Your task to perform on an android device: Go to settings Image 0: 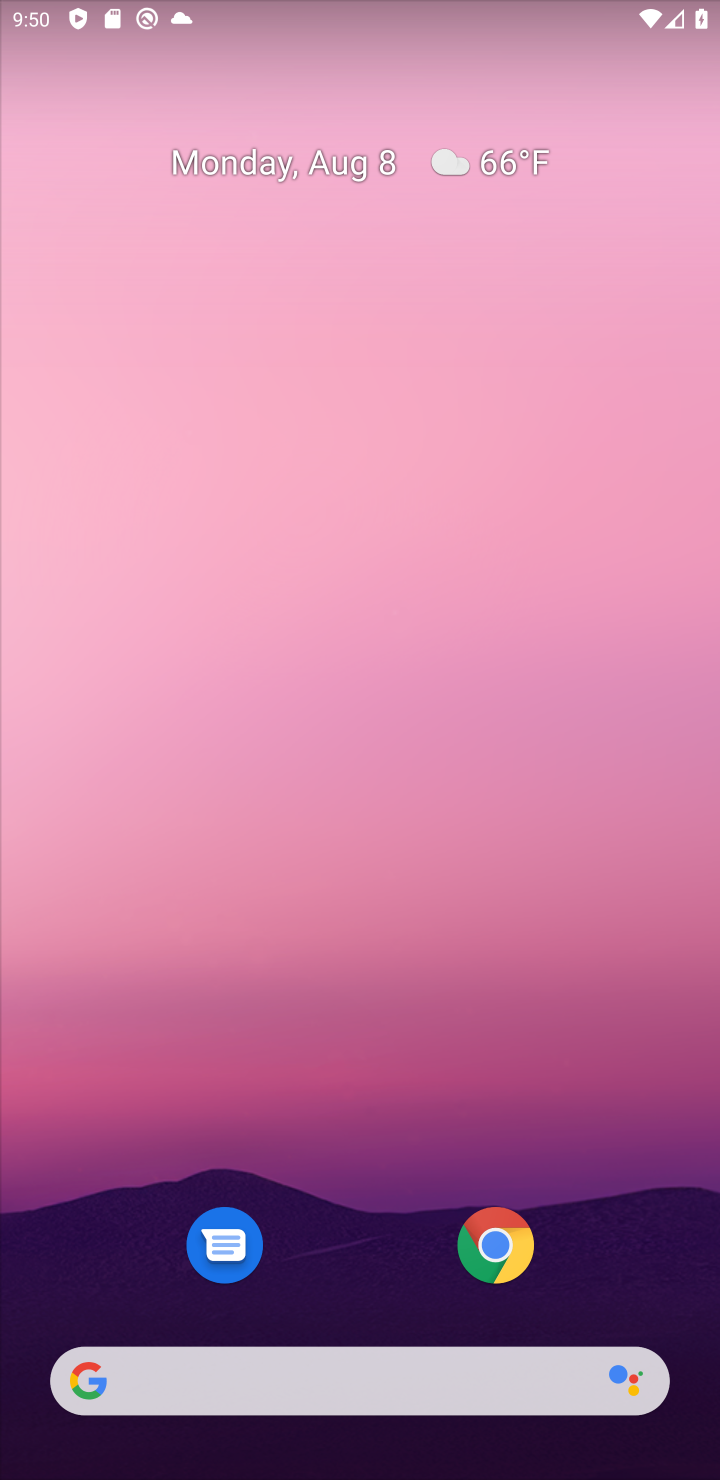
Step 0: drag from (372, 1261) to (431, 487)
Your task to perform on an android device: Go to settings Image 1: 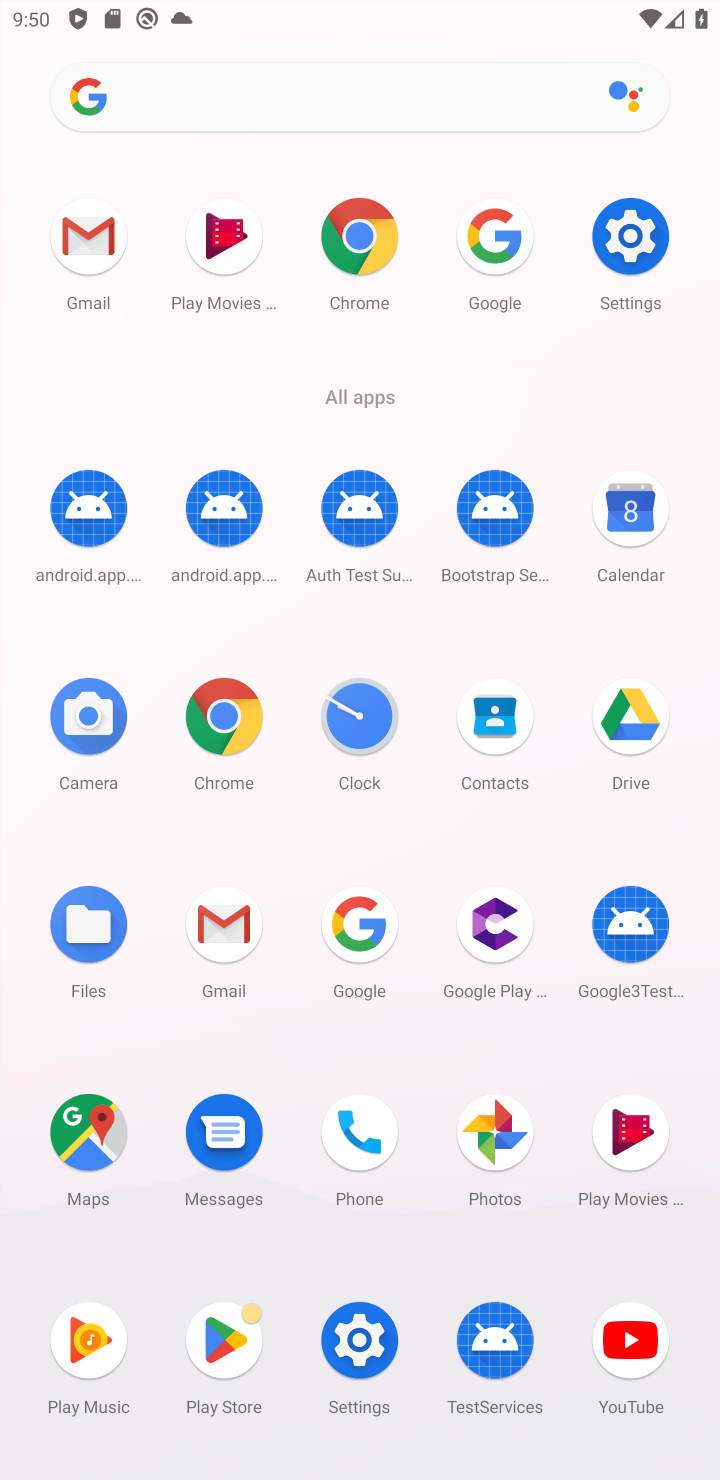
Step 1: click (628, 238)
Your task to perform on an android device: Go to settings Image 2: 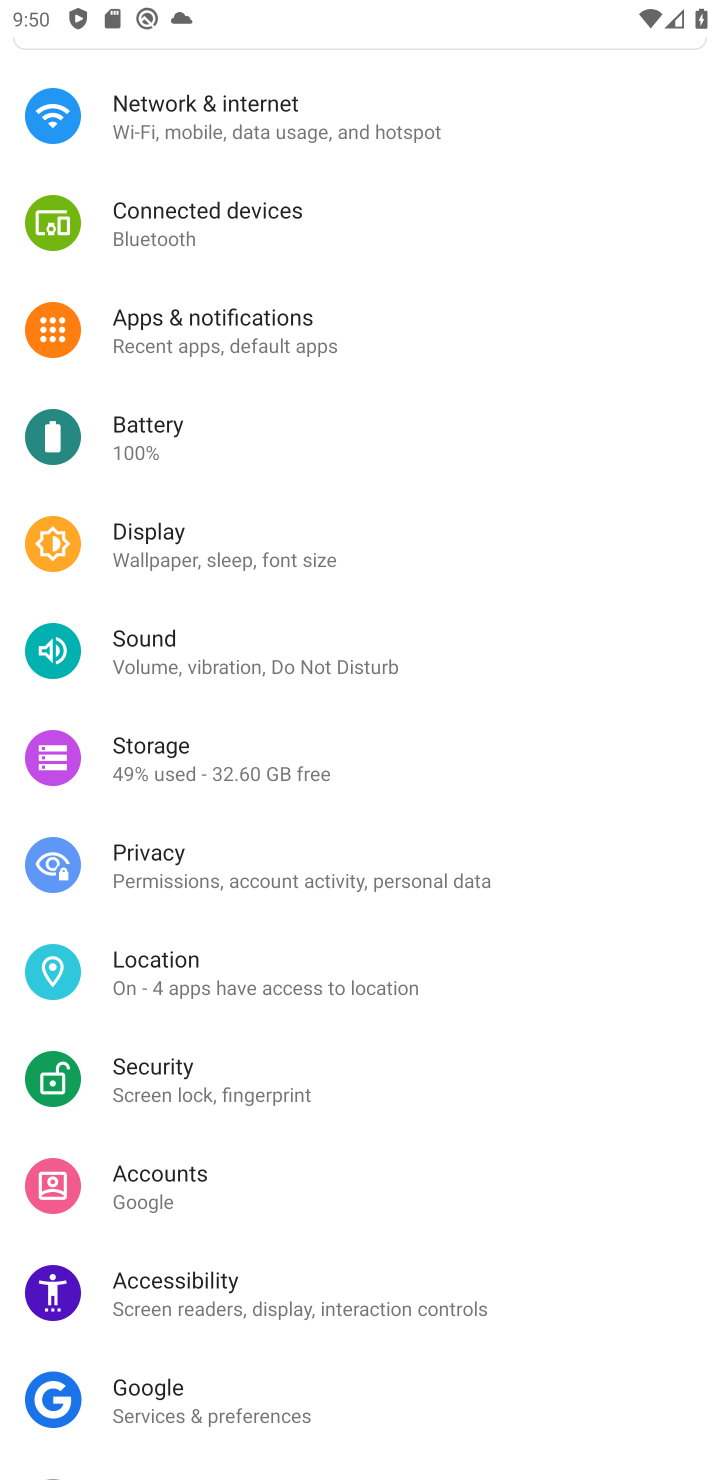
Step 2: task complete